Your task to perform on an android device: Open Chrome and go to settings Image 0: 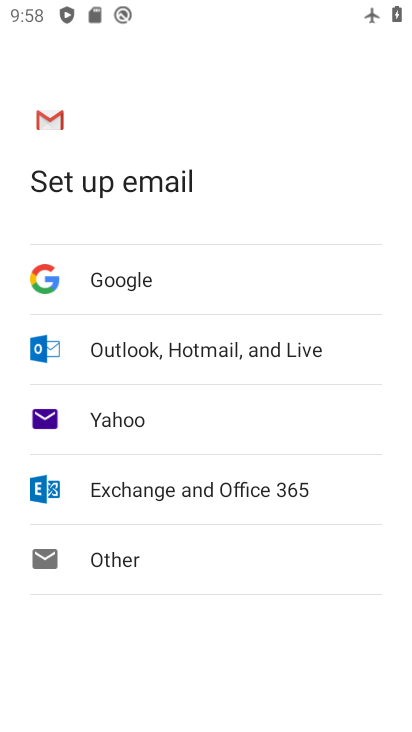
Step 0: press back button
Your task to perform on an android device: Open Chrome and go to settings Image 1: 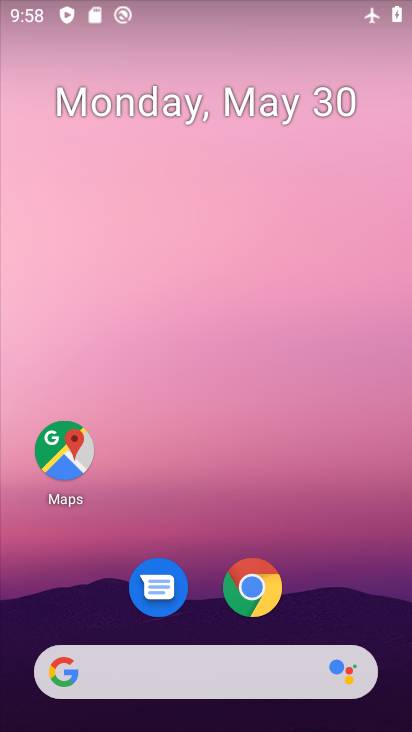
Step 1: drag from (330, 580) to (256, 0)
Your task to perform on an android device: Open Chrome and go to settings Image 2: 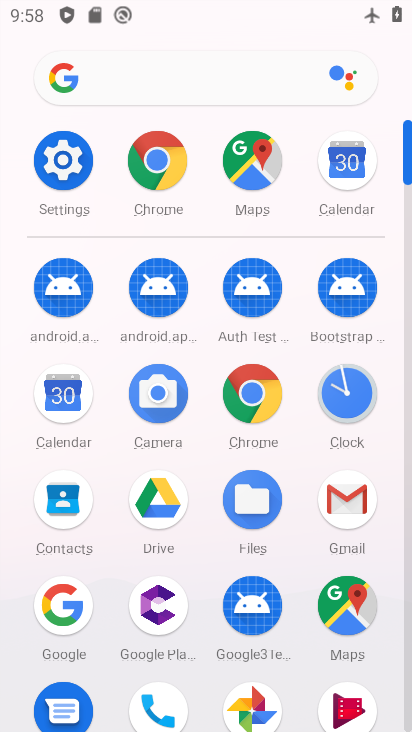
Step 2: click (153, 157)
Your task to perform on an android device: Open Chrome and go to settings Image 3: 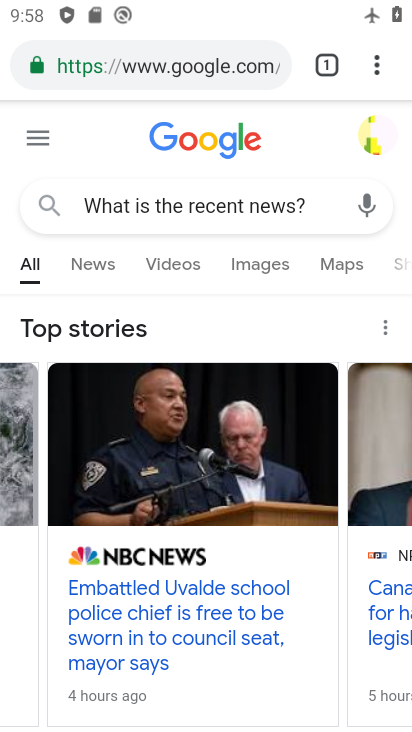
Step 3: task complete